Your task to perform on an android device: Open sound settings Image 0: 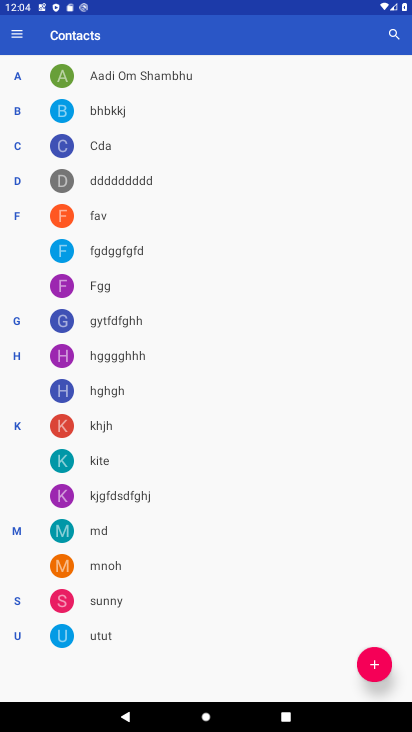
Step 0: press home button
Your task to perform on an android device: Open sound settings Image 1: 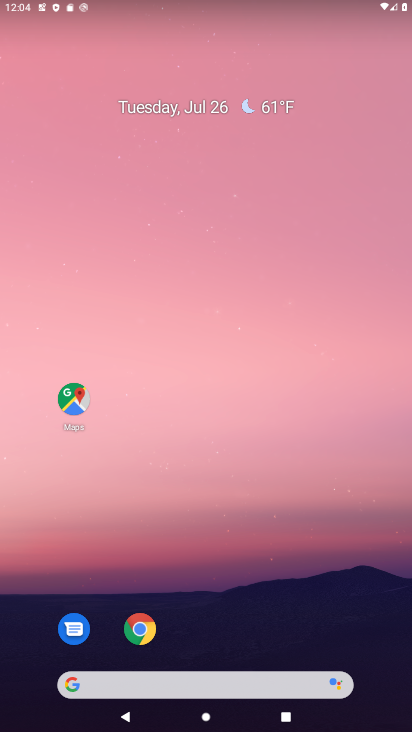
Step 1: drag from (227, 629) to (225, 200)
Your task to perform on an android device: Open sound settings Image 2: 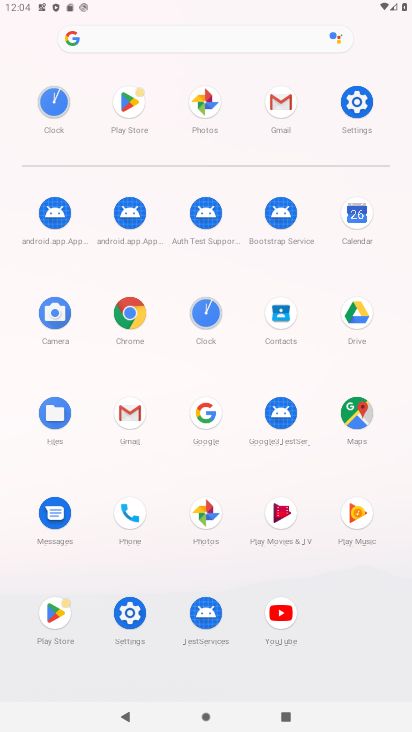
Step 2: click (349, 111)
Your task to perform on an android device: Open sound settings Image 3: 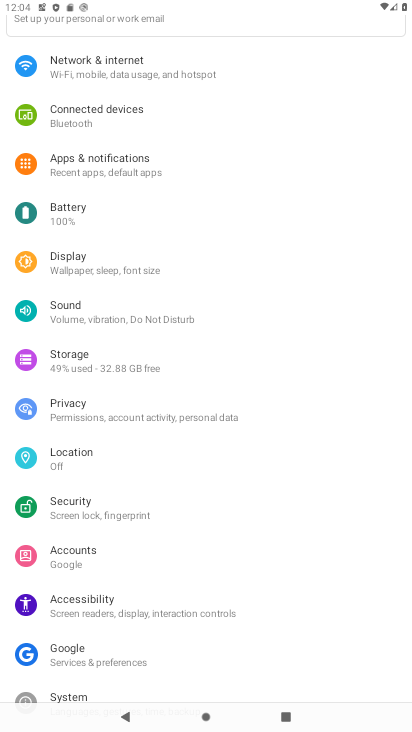
Step 3: click (98, 318)
Your task to perform on an android device: Open sound settings Image 4: 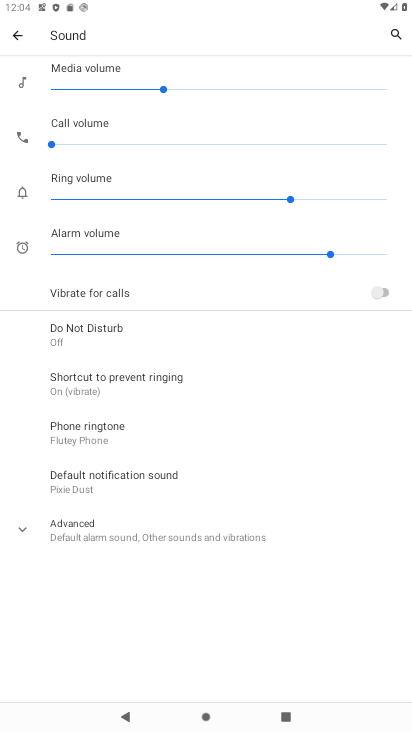
Step 4: task complete